Your task to perform on an android device: Open the calendar app, open the side menu, and click the "Day" option Image 0: 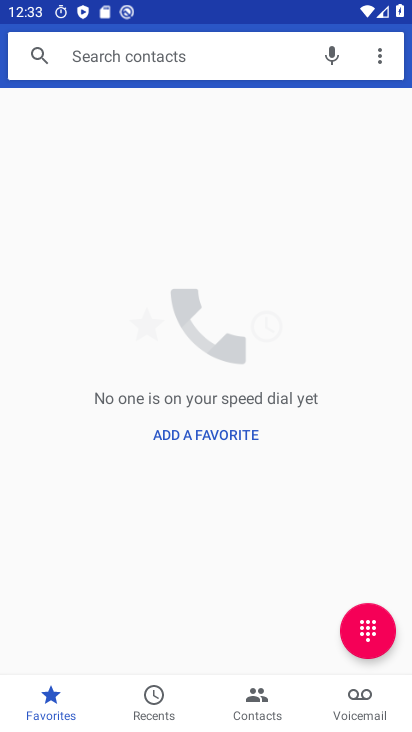
Step 0: press home button
Your task to perform on an android device: Open the calendar app, open the side menu, and click the "Day" option Image 1: 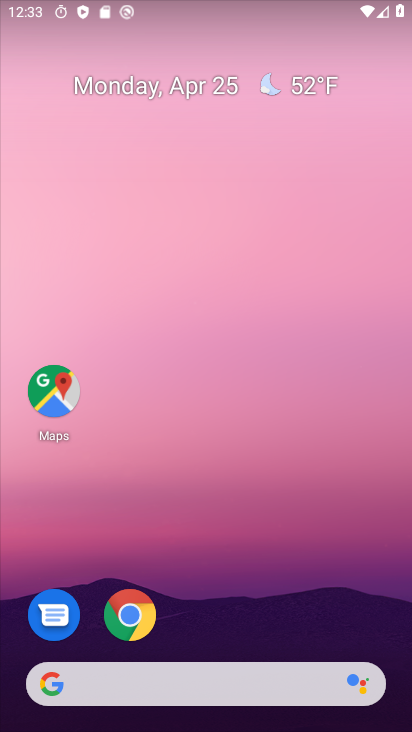
Step 1: drag from (203, 661) to (188, 44)
Your task to perform on an android device: Open the calendar app, open the side menu, and click the "Day" option Image 2: 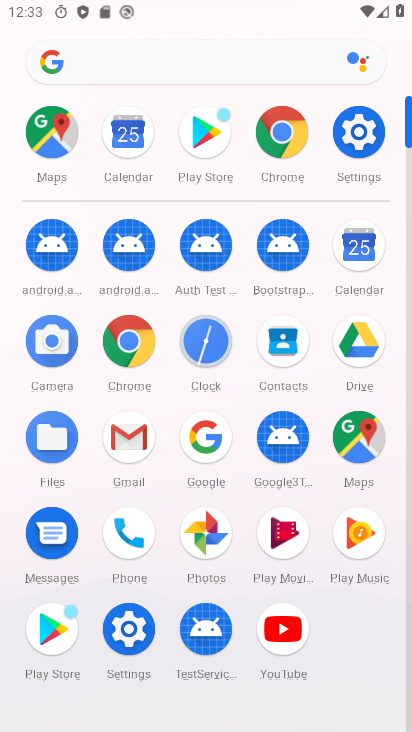
Step 2: click (363, 250)
Your task to perform on an android device: Open the calendar app, open the side menu, and click the "Day" option Image 3: 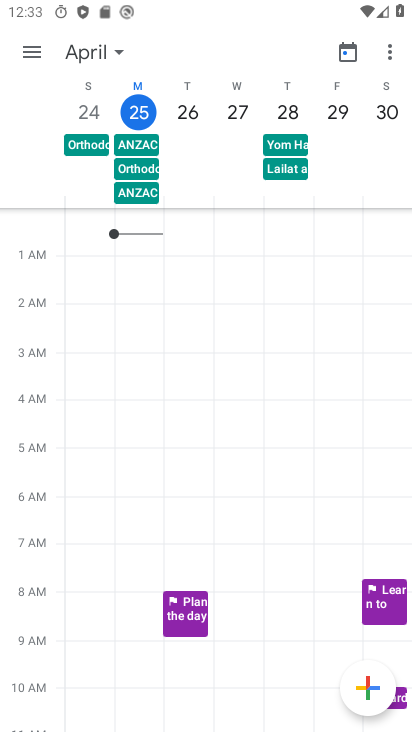
Step 3: click (29, 54)
Your task to perform on an android device: Open the calendar app, open the side menu, and click the "Day" option Image 4: 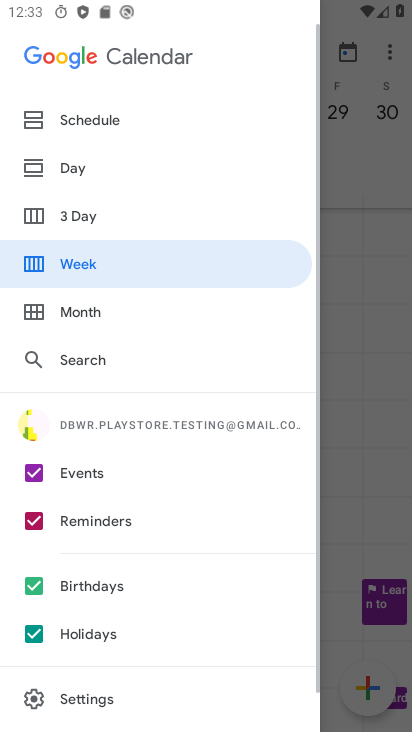
Step 4: click (70, 152)
Your task to perform on an android device: Open the calendar app, open the side menu, and click the "Day" option Image 5: 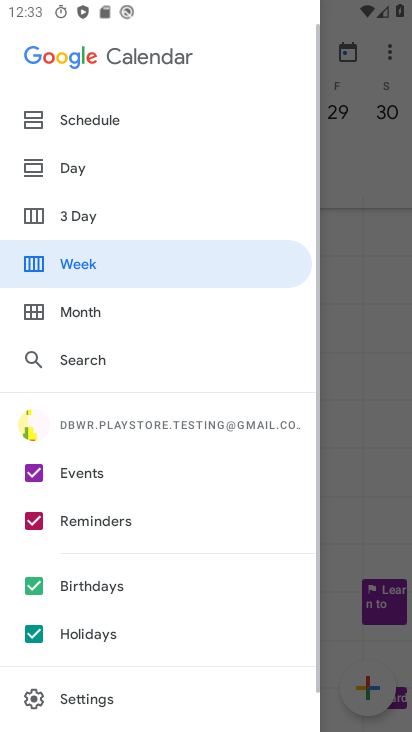
Step 5: click (85, 161)
Your task to perform on an android device: Open the calendar app, open the side menu, and click the "Day" option Image 6: 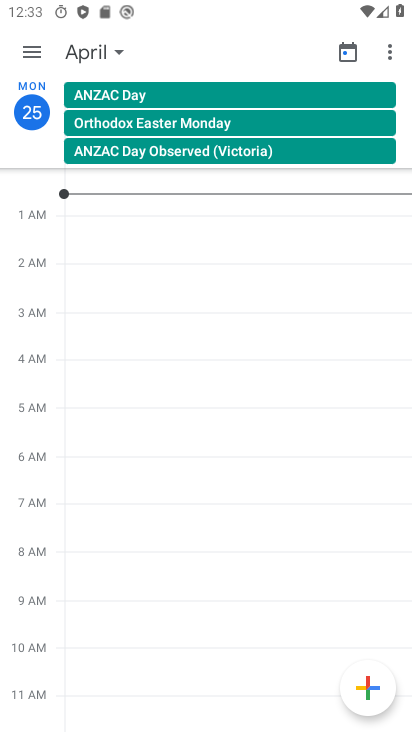
Step 6: task complete